Your task to perform on an android device: turn off picture-in-picture Image 0: 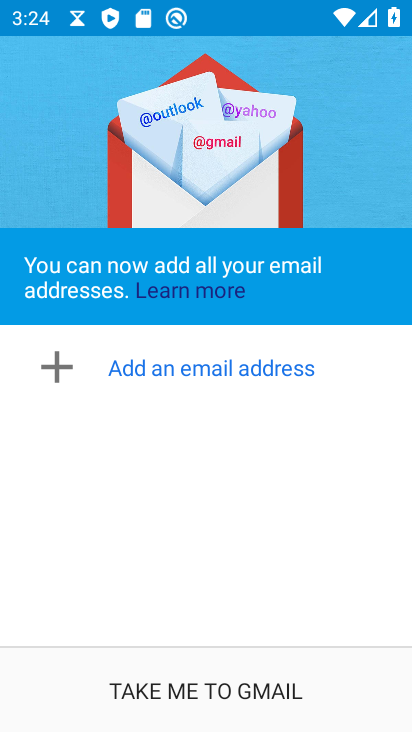
Step 0: press back button
Your task to perform on an android device: turn off picture-in-picture Image 1: 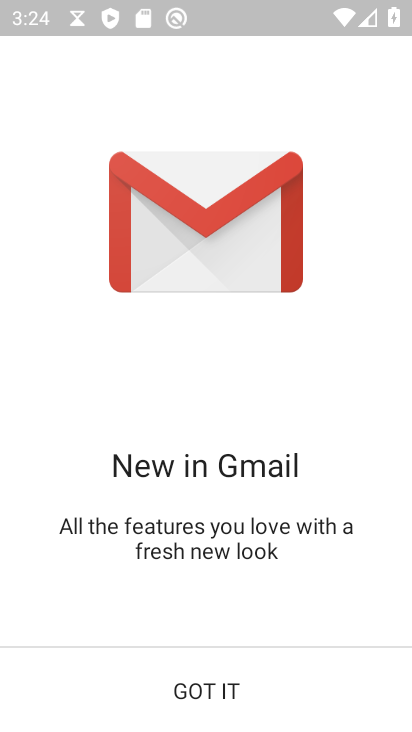
Step 1: click (164, 676)
Your task to perform on an android device: turn off picture-in-picture Image 2: 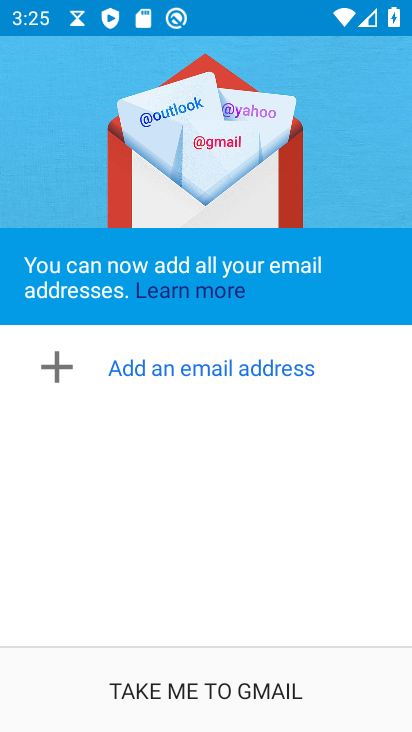
Step 2: press home button
Your task to perform on an android device: turn off picture-in-picture Image 3: 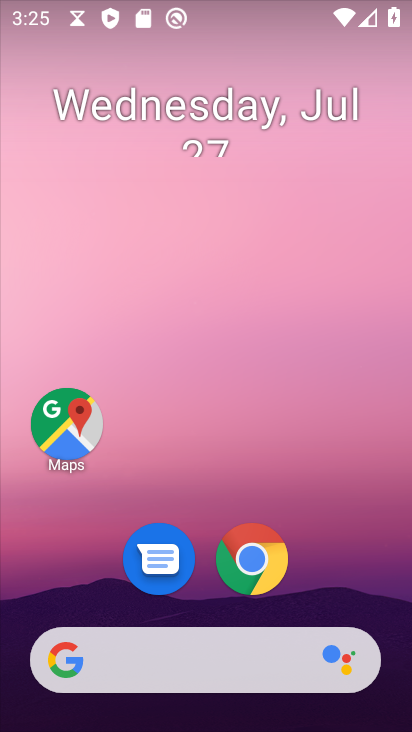
Step 3: click (270, 608)
Your task to perform on an android device: turn off picture-in-picture Image 4: 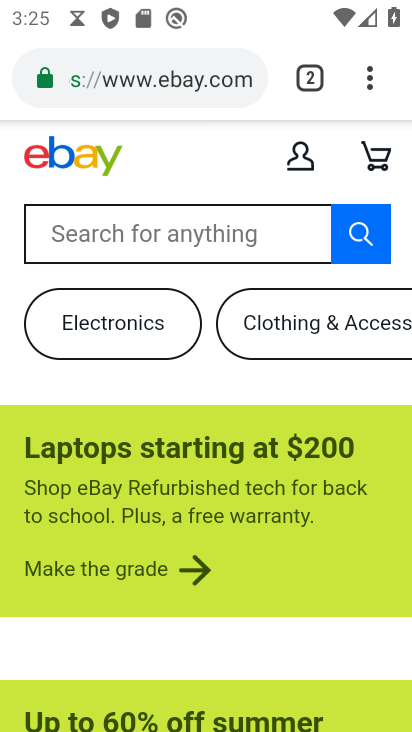
Step 4: press back button
Your task to perform on an android device: turn off picture-in-picture Image 5: 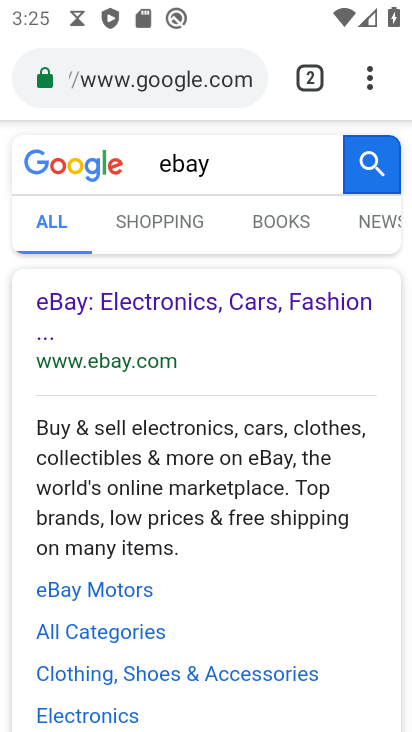
Step 5: press back button
Your task to perform on an android device: turn off picture-in-picture Image 6: 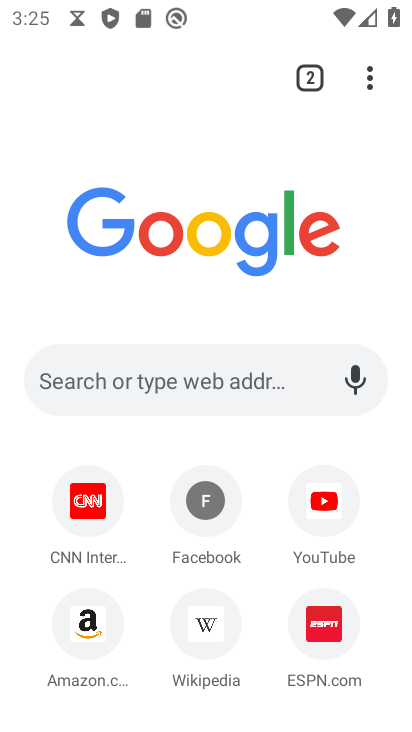
Step 6: press back button
Your task to perform on an android device: turn off picture-in-picture Image 7: 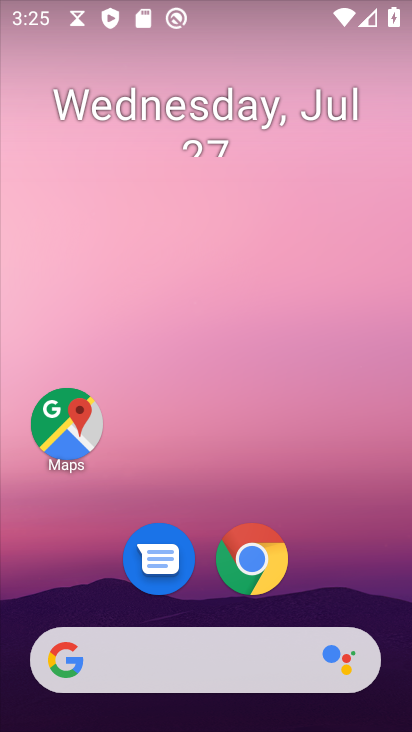
Step 7: drag from (95, 562) to (258, 0)
Your task to perform on an android device: turn off picture-in-picture Image 8: 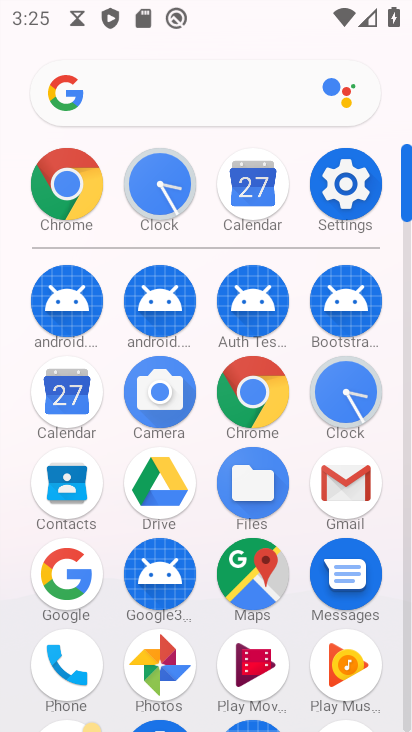
Step 8: click (360, 193)
Your task to perform on an android device: turn off picture-in-picture Image 9: 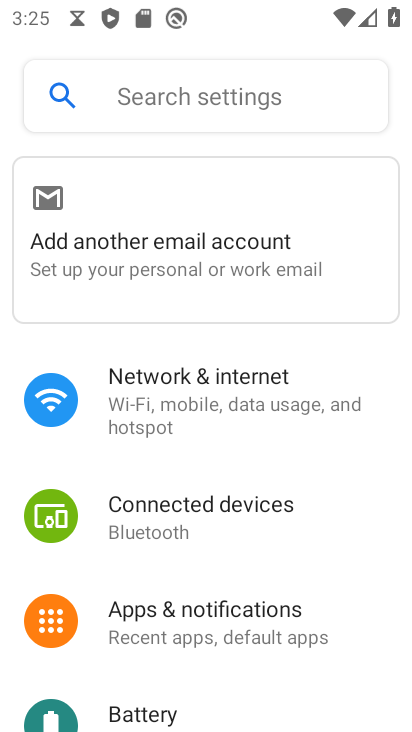
Step 9: click (234, 629)
Your task to perform on an android device: turn off picture-in-picture Image 10: 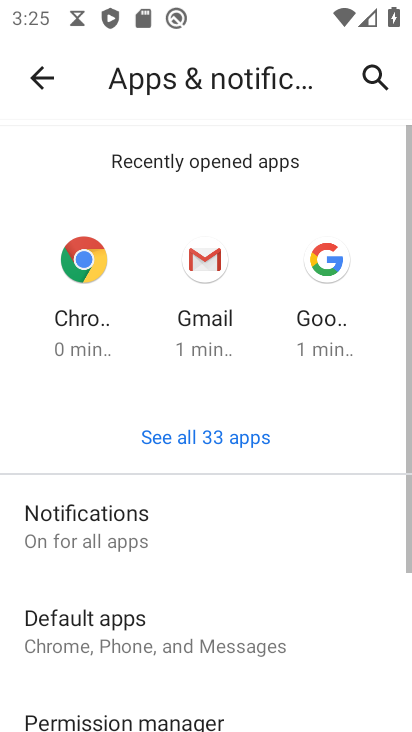
Step 10: drag from (234, 629) to (307, 46)
Your task to perform on an android device: turn off picture-in-picture Image 11: 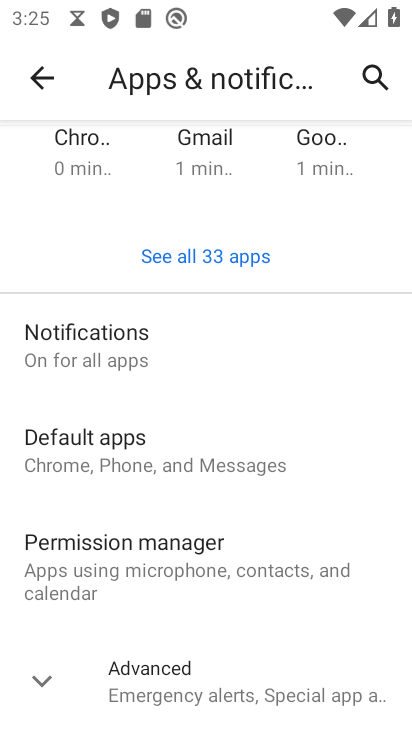
Step 11: click (189, 692)
Your task to perform on an android device: turn off picture-in-picture Image 12: 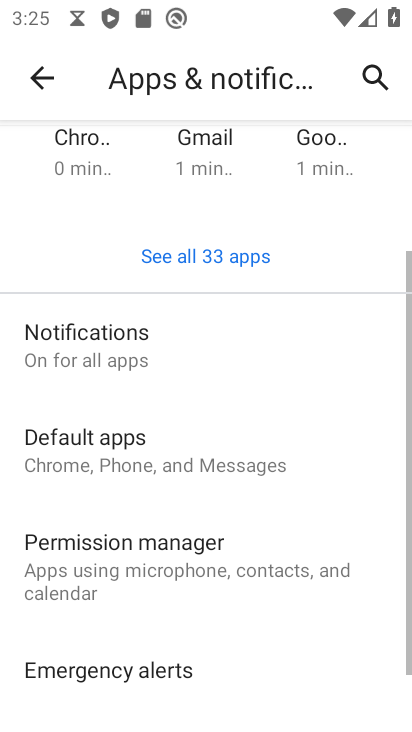
Step 12: drag from (208, 633) to (297, 16)
Your task to perform on an android device: turn off picture-in-picture Image 13: 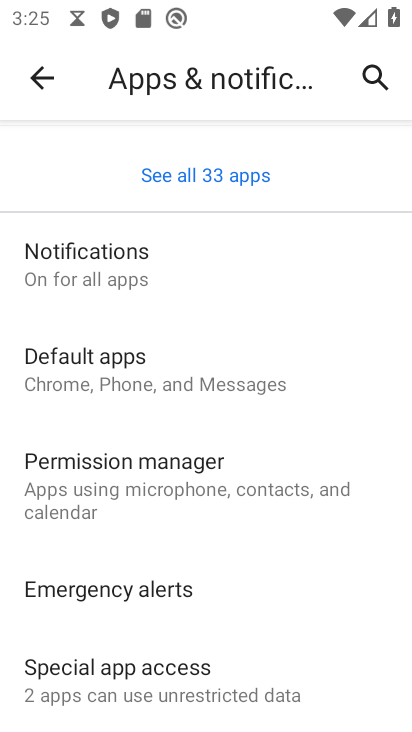
Step 13: click (148, 671)
Your task to perform on an android device: turn off picture-in-picture Image 14: 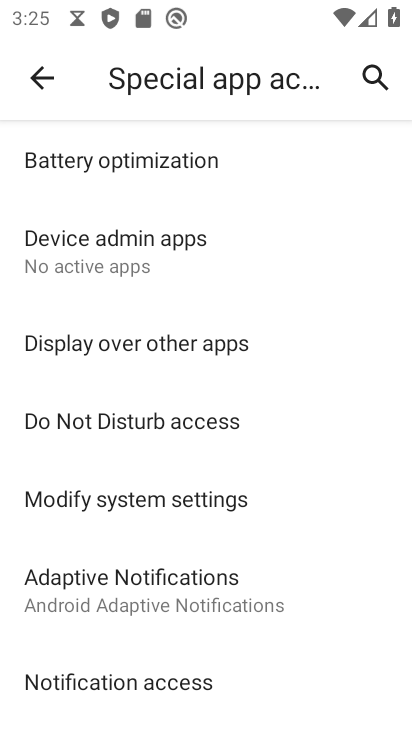
Step 14: drag from (150, 682) to (265, 151)
Your task to perform on an android device: turn off picture-in-picture Image 15: 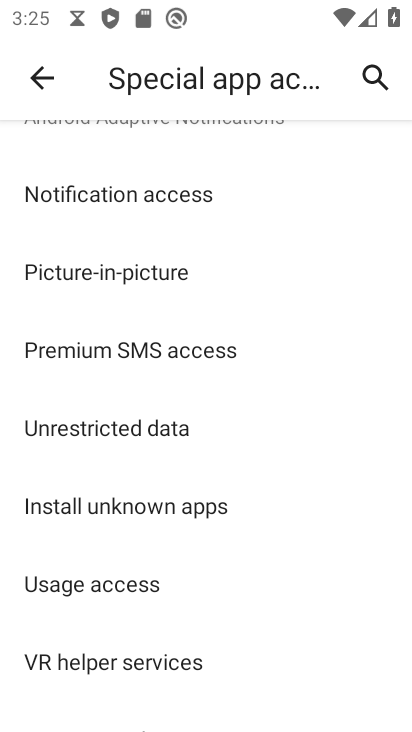
Step 15: click (75, 257)
Your task to perform on an android device: turn off picture-in-picture Image 16: 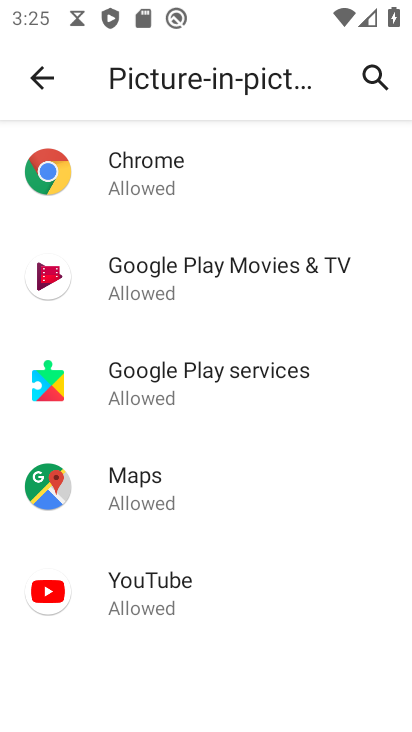
Step 16: click (172, 146)
Your task to perform on an android device: turn off picture-in-picture Image 17: 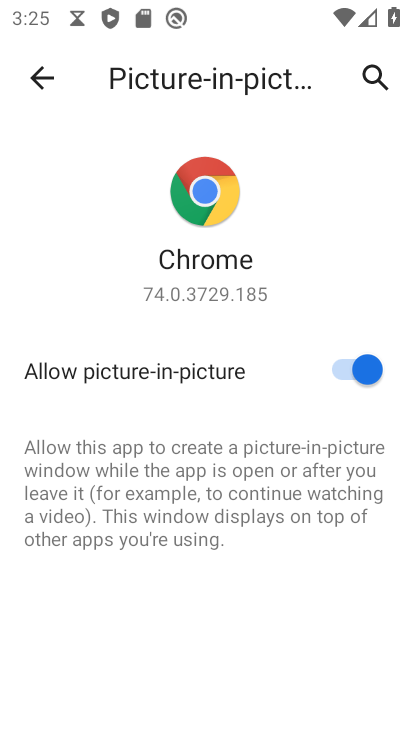
Step 17: click (355, 369)
Your task to perform on an android device: turn off picture-in-picture Image 18: 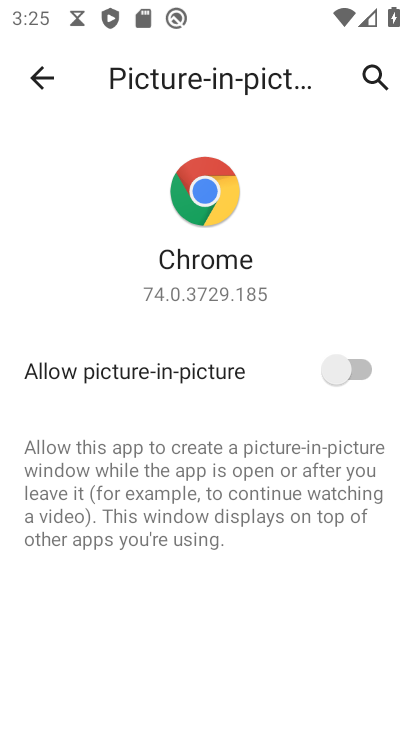
Step 18: task complete